Your task to perform on an android device: Open Wikipedia Image 0: 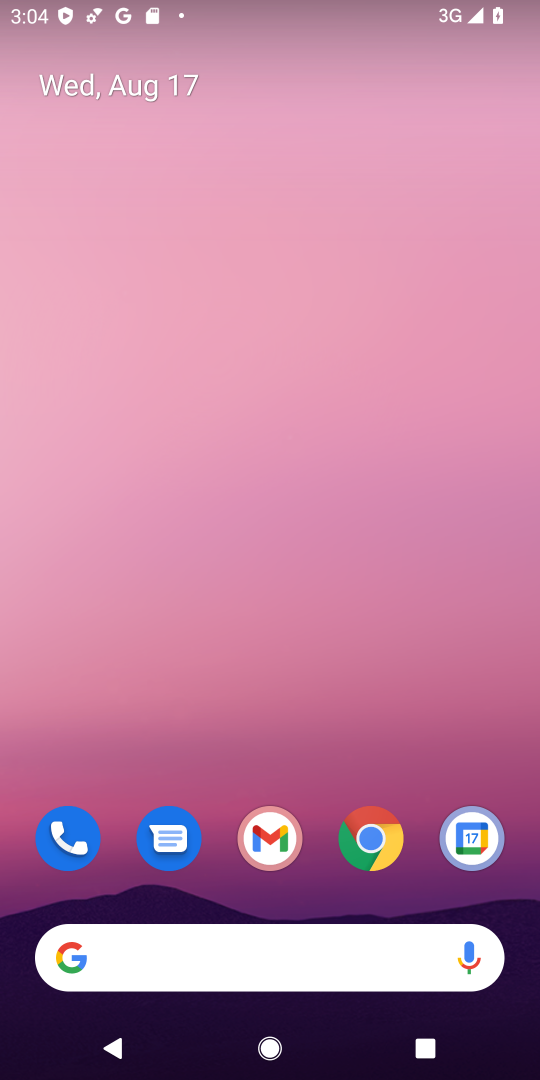
Step 0: click (364, 838)
Your task to perform on an android device: Open Wikipedia Image 1: 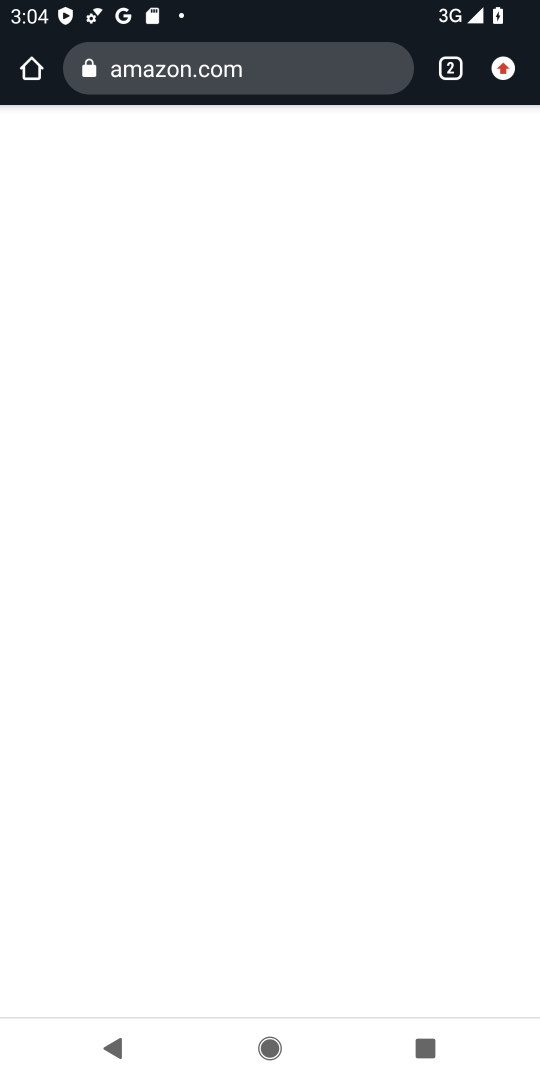
Step 1: click (447, 62)
Your task to perform on an android device: Open Wikipedia Image 2: 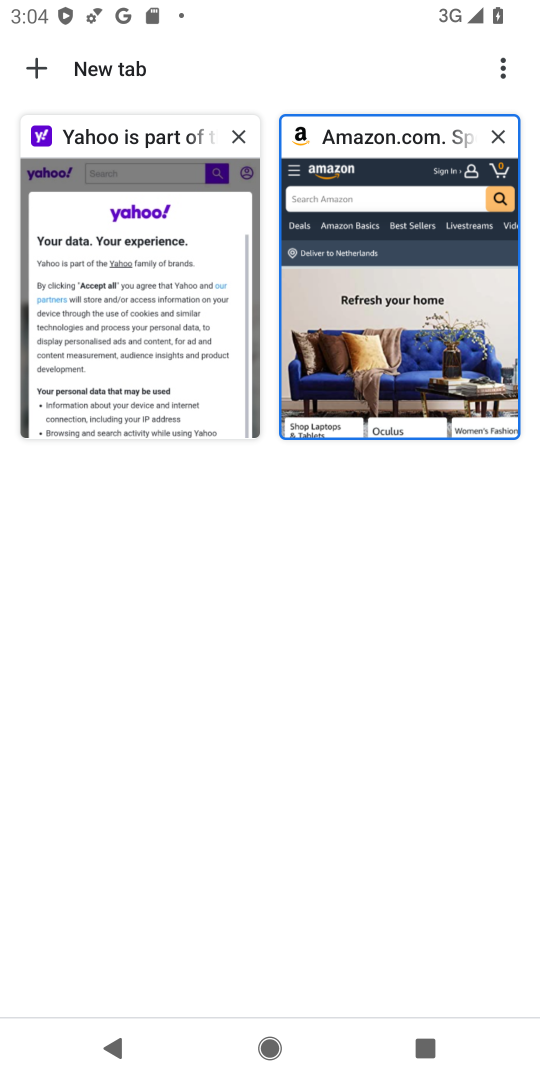
Step 2: click (40, 57)
Your task to perform on an android device: Open Wikipedia Image 3: 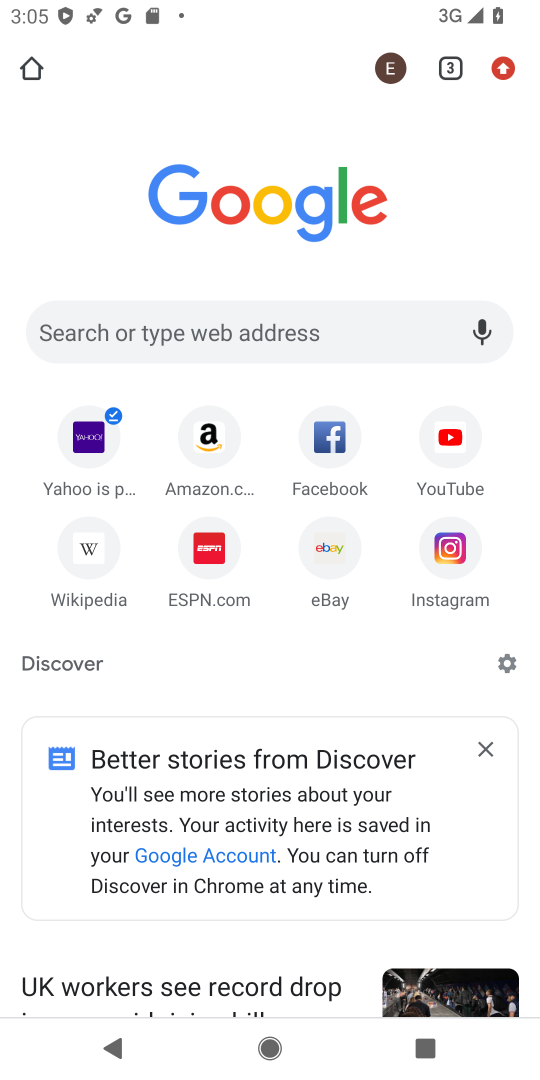
Step 3: click (85, 549)
Your task to perform on an android device: Open Wikipedia Image 4: 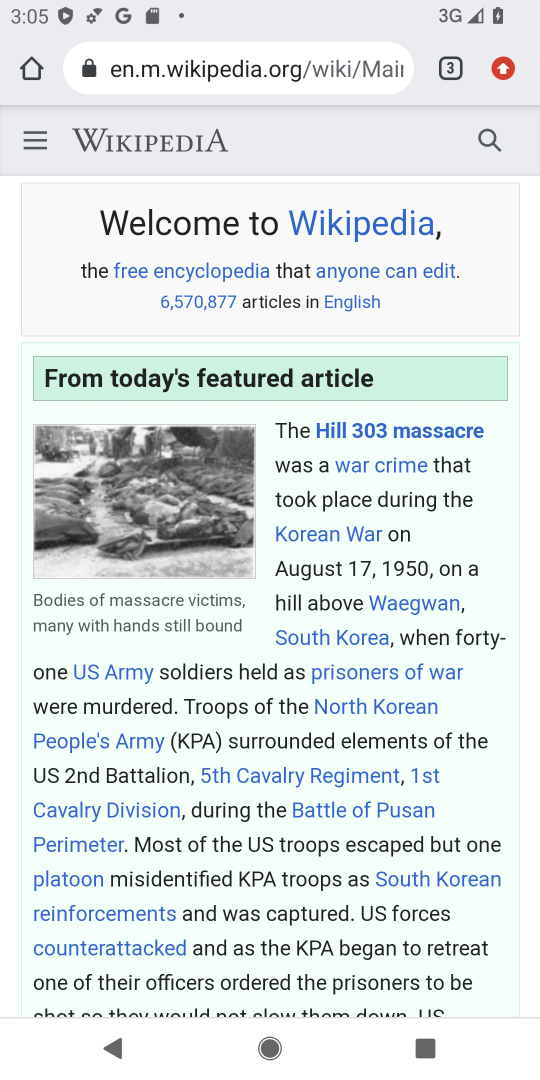
Step 4: task complete